Your task to perform on an android device: see sites visited before in the chrome app Image 0: 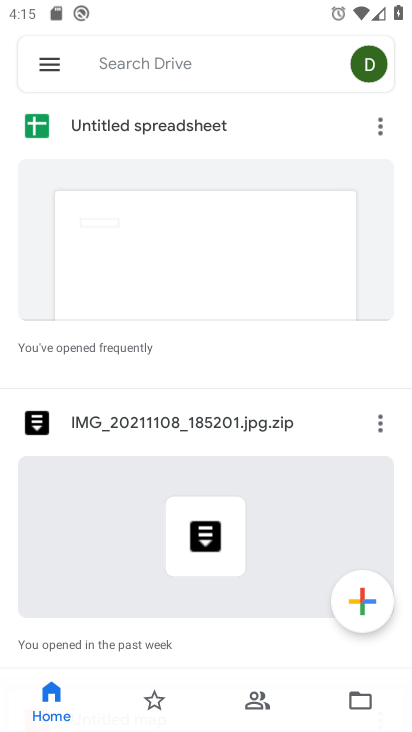
Step 0: press home button
Your task to perform on an android device: see sites visited before in the chrome app Image 1: 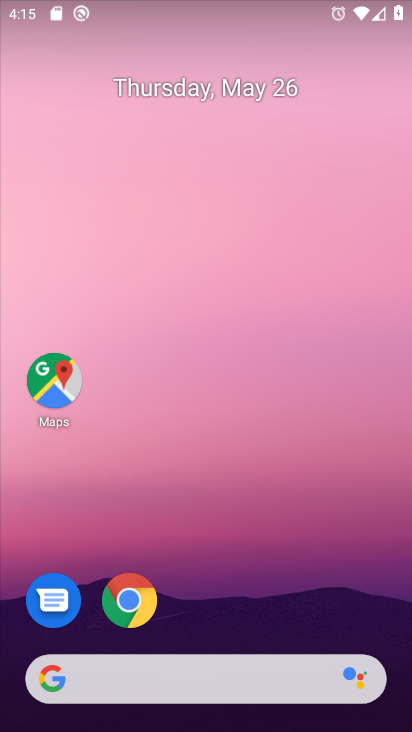
Step 1: click (140, 593)
Your task to perform on an android device: see sites visited before in the chrome app Image 2: 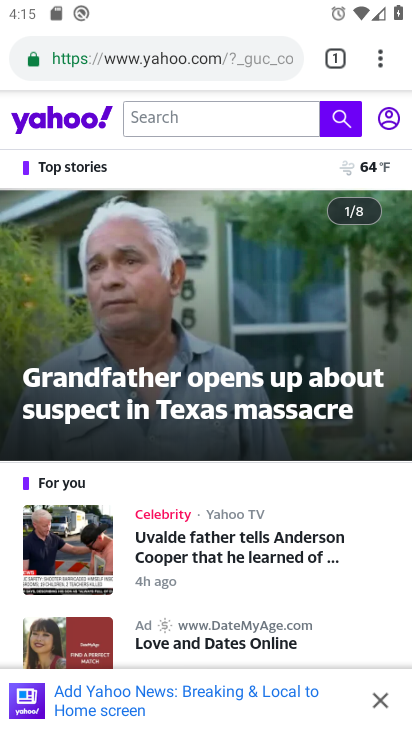
Step 2: click (370, 42)
Your task to perform on an android device: see sites visited before in the chrome app Image 3: 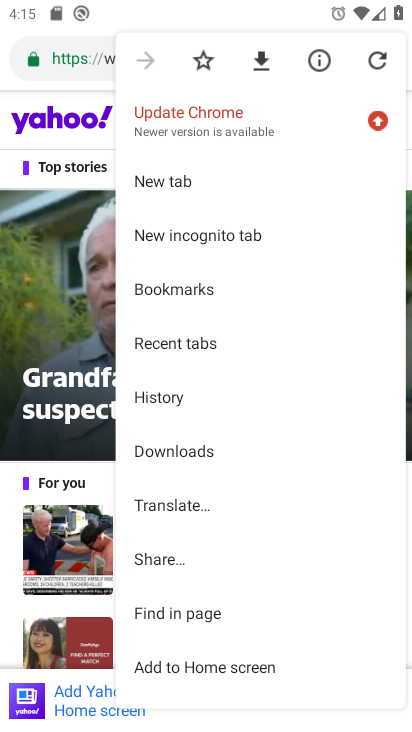
Step 3: click (188, 403)
Your task to perform on an android device: see sites visited before in the chrome app Image 4: 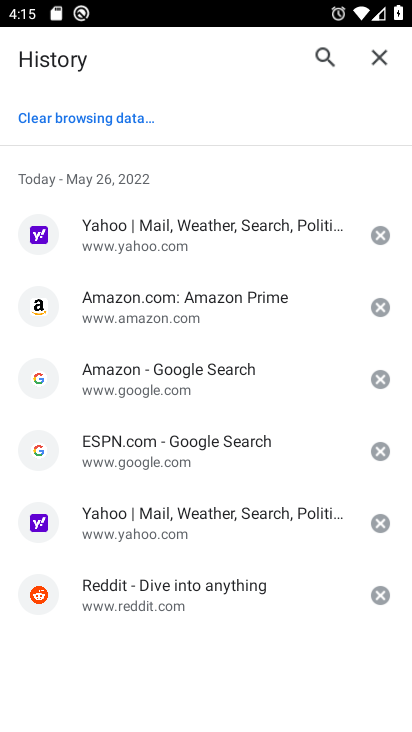
Step 4: task complete